Your task to perform on an android device: Check the news Image 0: 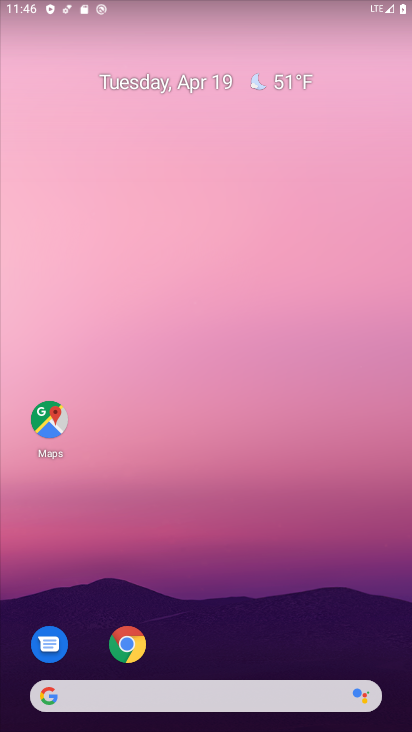
Step 0: drag from (1, 344) to (400, 381)
Your task to perform on an android device: Check the news Image 1: 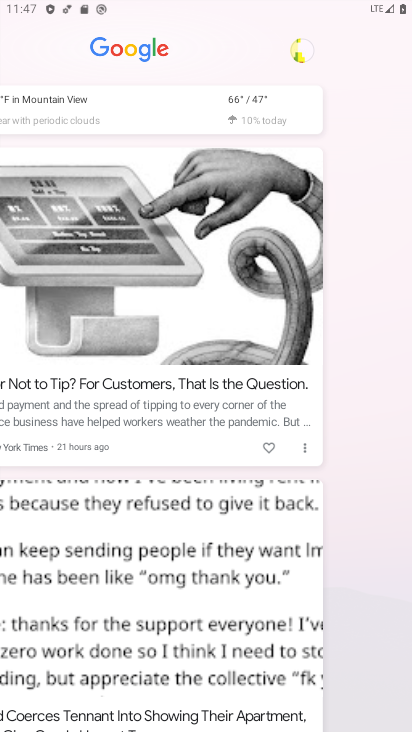
Step 1: task complete